Your task to perform on an android device: turn on bluetooth scan Image 0: 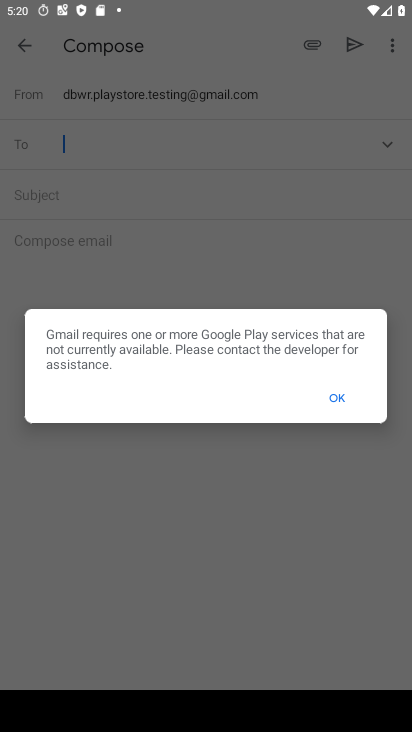
Step 0: press home button
Your task to perform on an android device: turn on bluetooth scan Image 1: 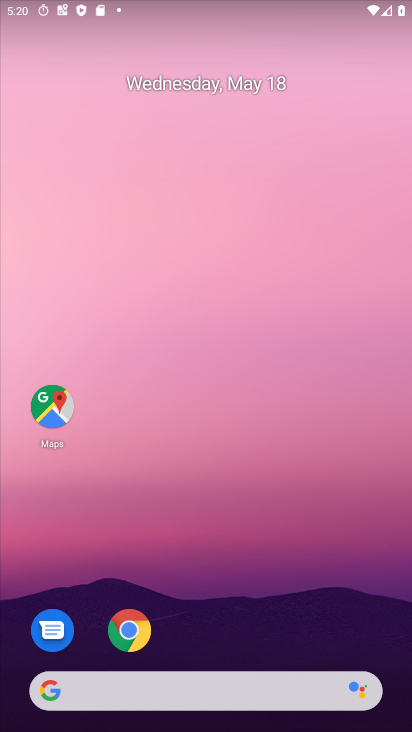
Step 1: drag from (174, 636) to (197, 314)
Your task to perform on an android device: turn on bluetooth scan Image 2: 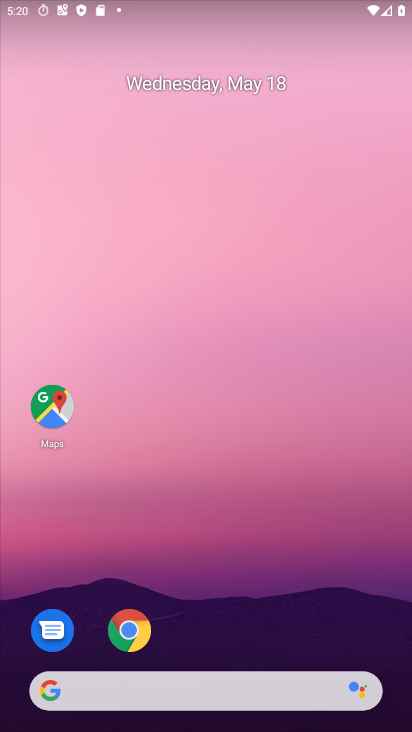
Step 2: drag from (216, 676) to (215, 172)
Your task to perform on an android device: turn on bluetooth scan Image 3: 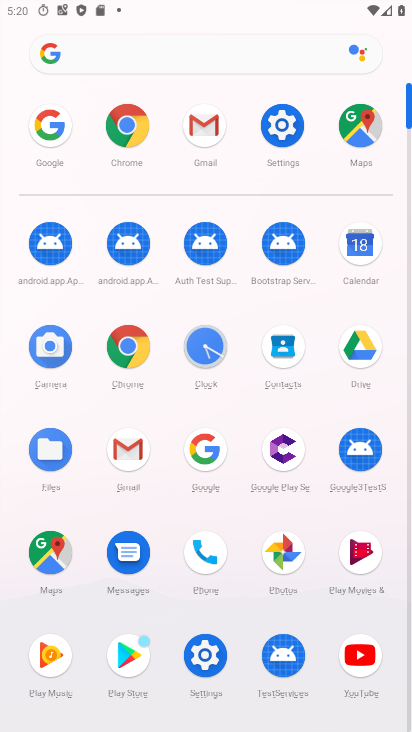
Step 3: click (275, 123)
Your task to perform on an android device: turn on bluetooth scan Image 4: 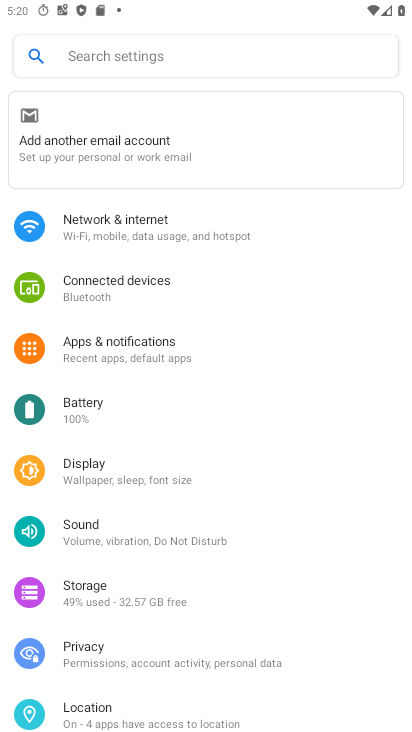
Step 4: click (81, 717)
Your task to perform on an android device: turn on bluetooth scan Image 5: 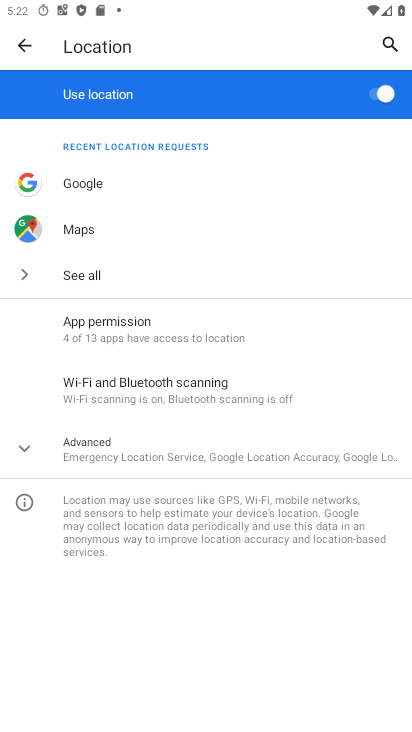
Step 5: click (114, 451)
Your task to perform on an android device: turn on bluetooth scan Image 6: 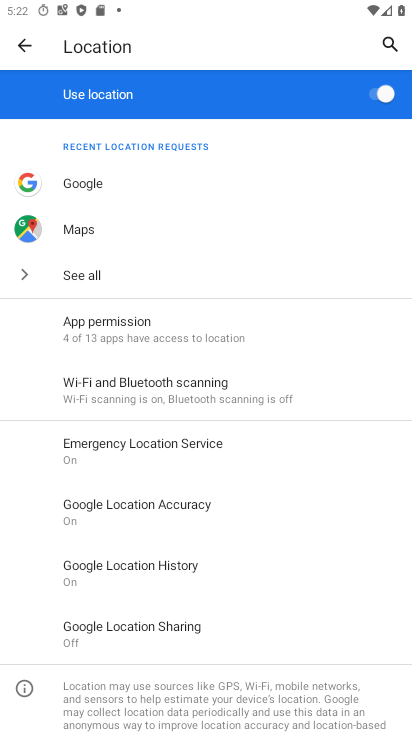
Step 6: click (96, 375)
Your task to perform on an android device: turn on bluetooth scan Image 7: 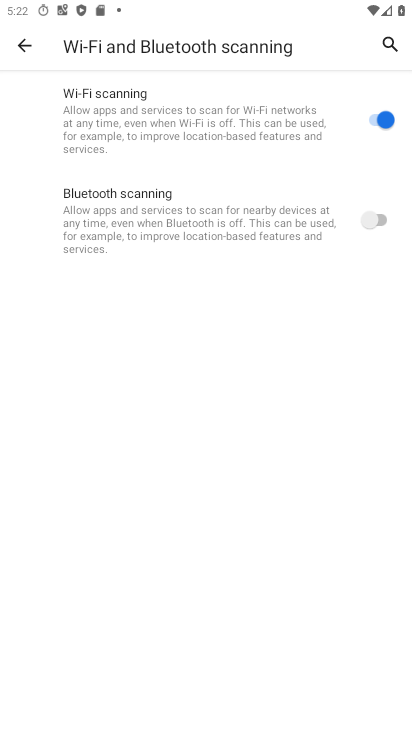
Step 7: click (374, 217)
Your task to perform on an android device: turn on bluetooth scan Image 8: 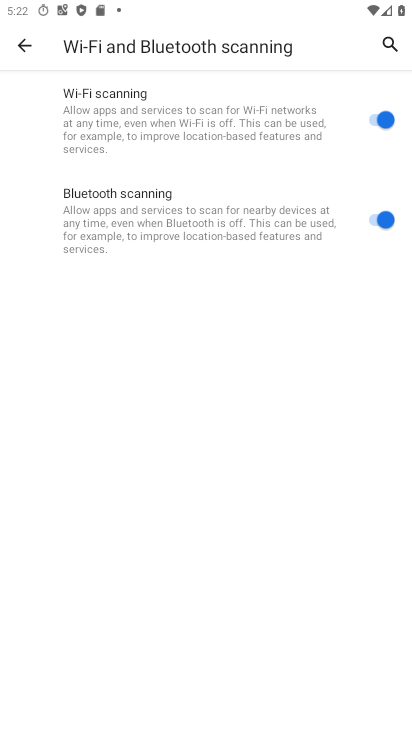
Step 8: task complete